Your task to perform on an android device: Open Chrome and go to settings Image 0: 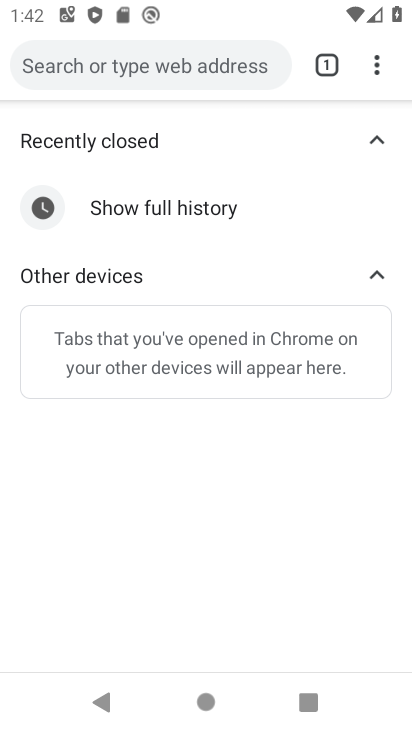
Step 0: press home button
Your task to perform on an android device: Open Chrome and go to settings Image 1: 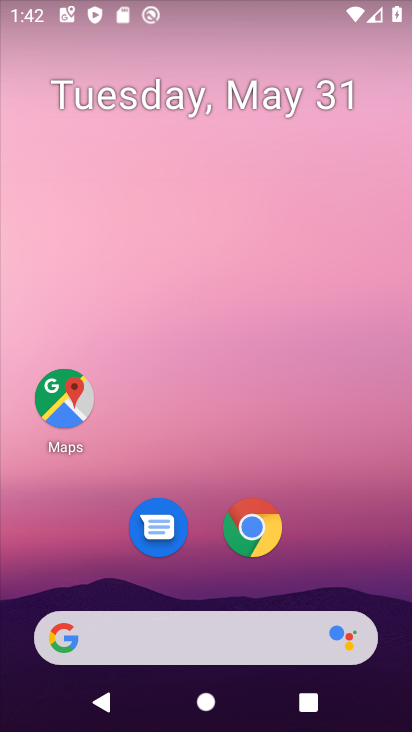
Step 1: drag from (360, 538) to (345, 166)
Your task to perform on an android device: Open Chrome and go to settings Image 2: 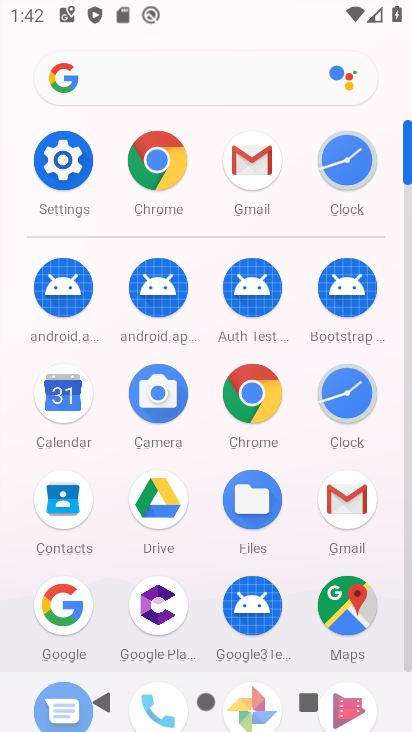
Step 2: click (155, 167)
Your task to perform on an android device: Open Chrome and go to settings Image 3: 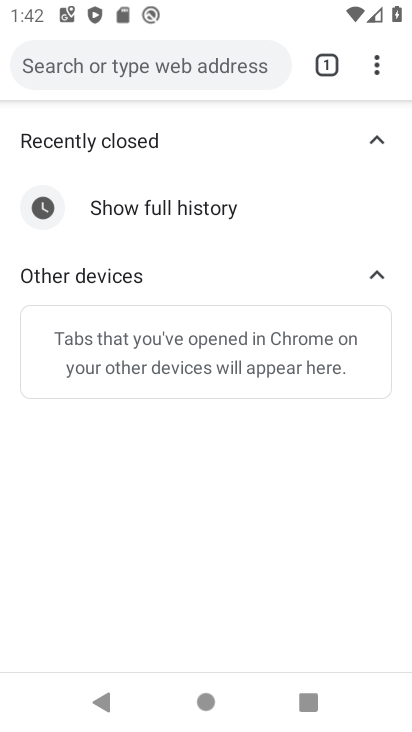
Step 3: task complete